Your task to perform on an android device: turn off location history Image 0: 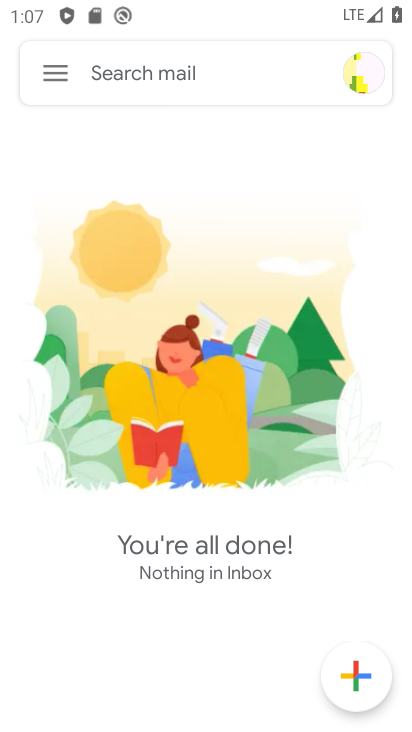
Step 0: press home button
Your task to perform on an android device: turn off location history Image 1: 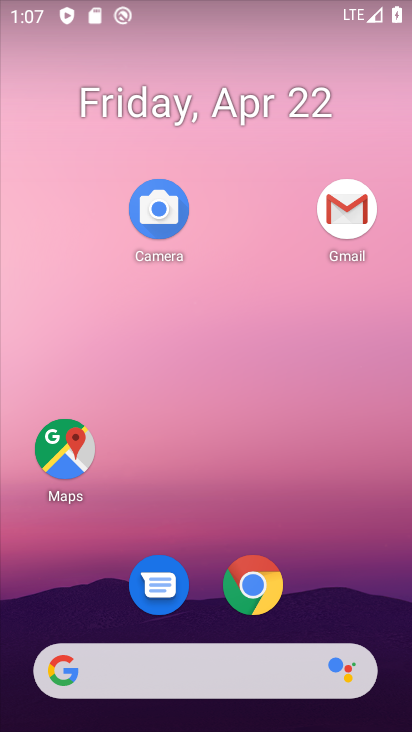
Step 1: drag from (319, 537) to (295, 156)
Your task to perform on an android device: turn off location history Image 2: 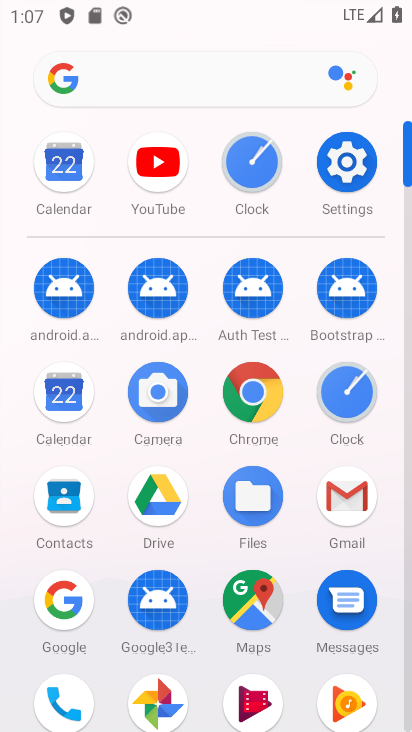
Step 2: click (353, 161)
Your task to perform on an android device: turn off location history Image 3: 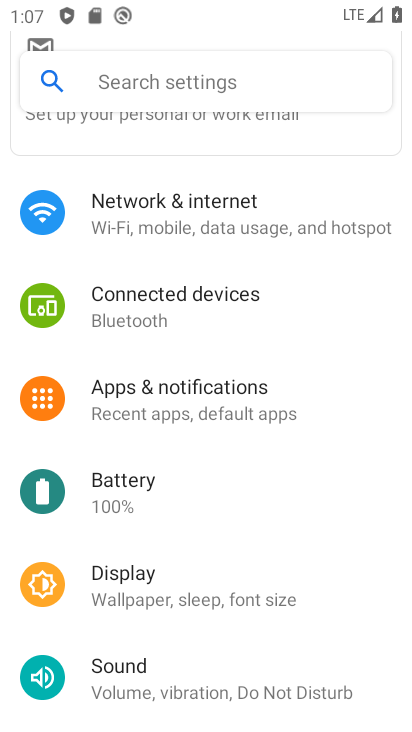
Step 3: drag from (295, 397) to (293, 189)
Your task to perform on an android device: turn off location history Image 4: 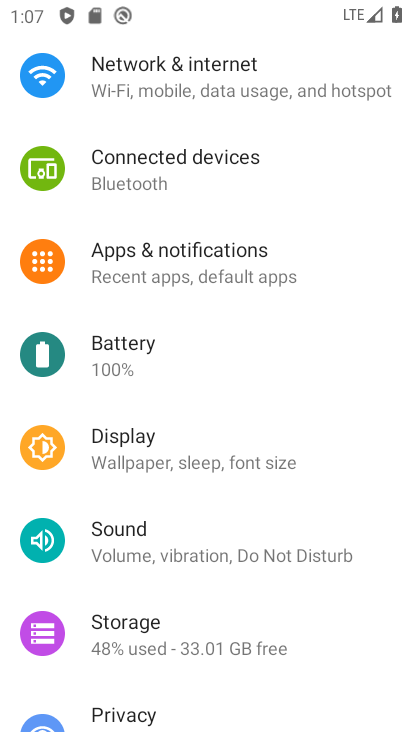
Step 4: drag from (221, 608) to (263, 155)
Your task to perform on an android device: turn off location history Image 5: 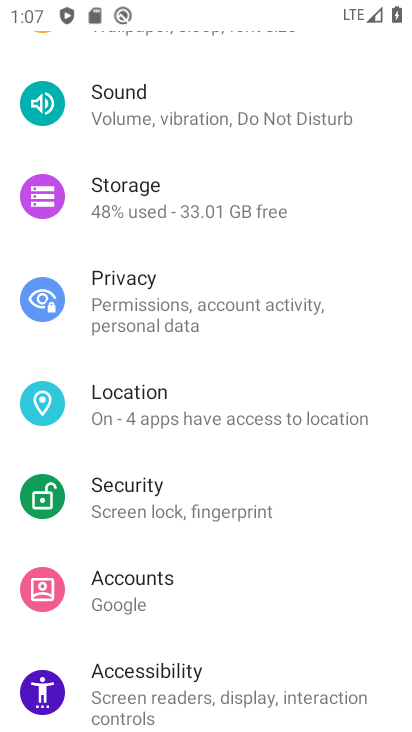
Step 5: click (231, 408)
Your task to perform on an android device: turn off location history Image 6: 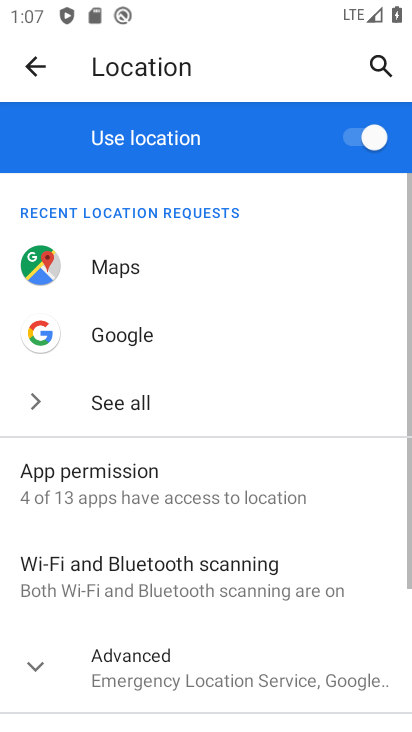
Step 6: click (38, 663)
Your task to perform on an android device: turn off location history Image 7: 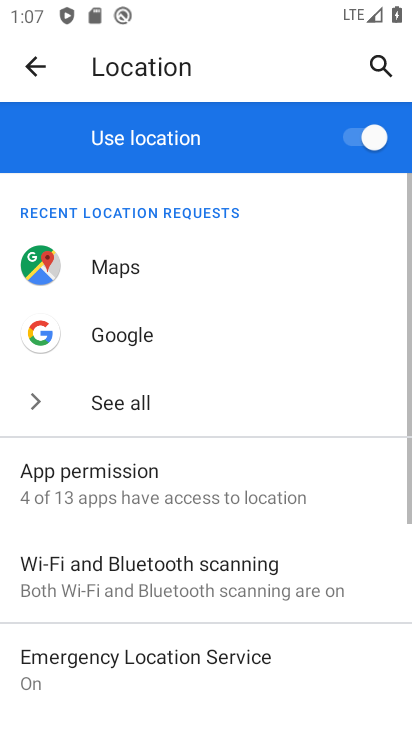
Step 7: task complete